Your task to perform on an android device: turn off picture-in-picture Image 0: 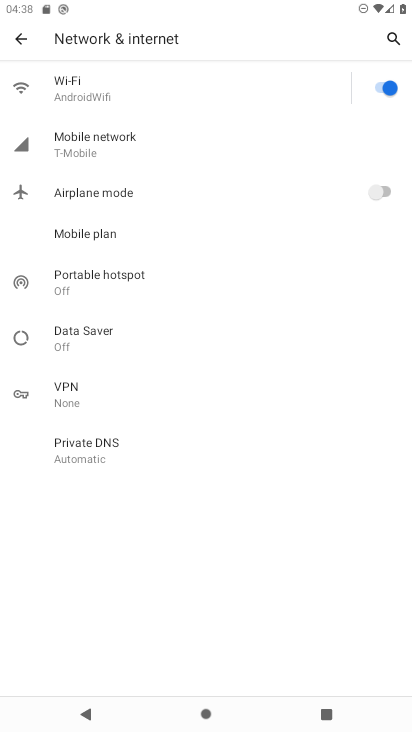
Step 0: press home button
Your task to perform on an android device: turn off picture-in-picture Image 1: 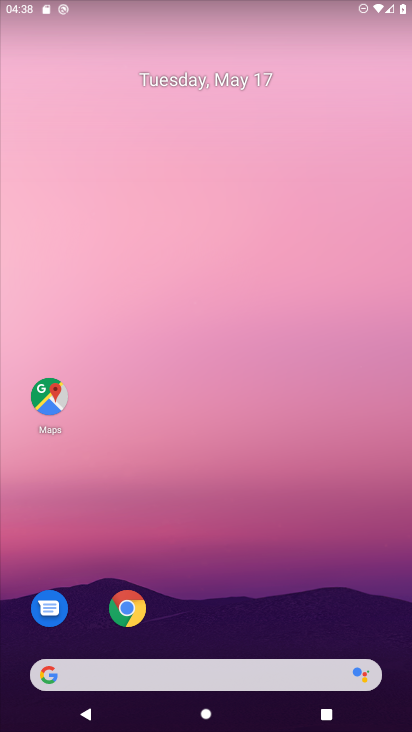
Step 1: click (120, 601)
Your task to perform on an android device: turn off picture-in-picture Image 2: 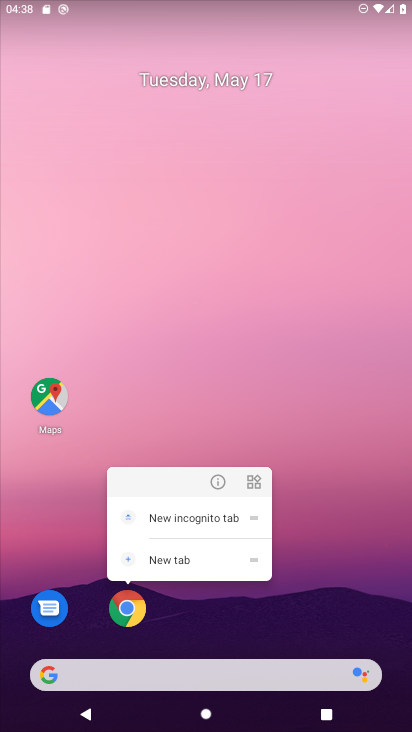
Step 2: click (220, 479)
Your task to perform on an android device: turn off picture-in-picture Image 3: 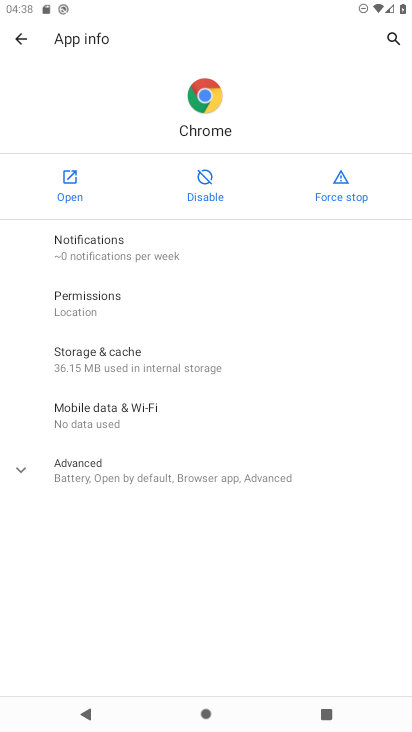
Step 3: click (113, 474)
Your task to perform on an android device: turn off picture-in-picture Image 4: 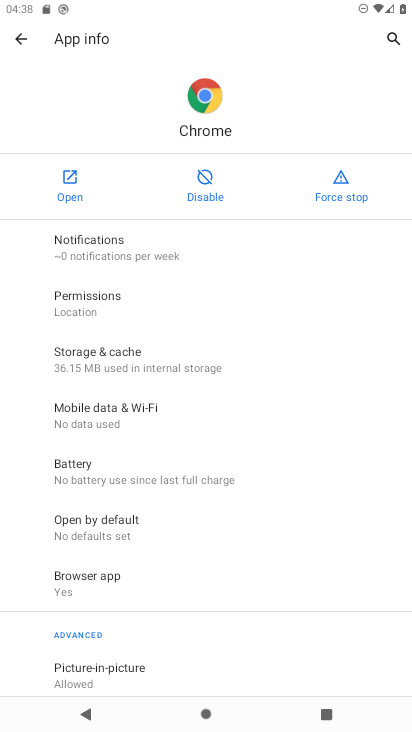
Step 4: drag from (231, 666) to (213, 251)
Your task to perform on an android device: turn off picture-in-picture Image 5: 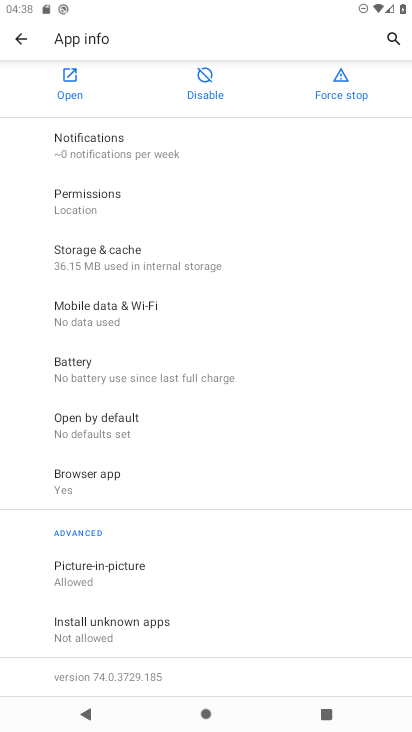
Step 5: click (75, 575)
Your task to perform on an android device: turn off picture-in-picture Image 6: 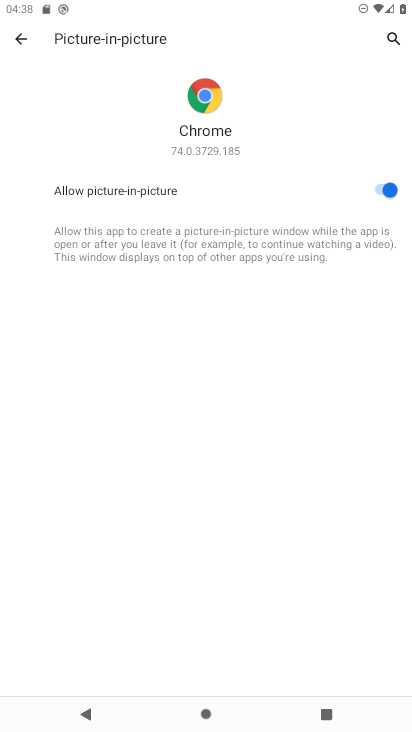
Step 6: click (379, 186)
Your task to perform on an android device: turn off picture-in-picture Image 7: 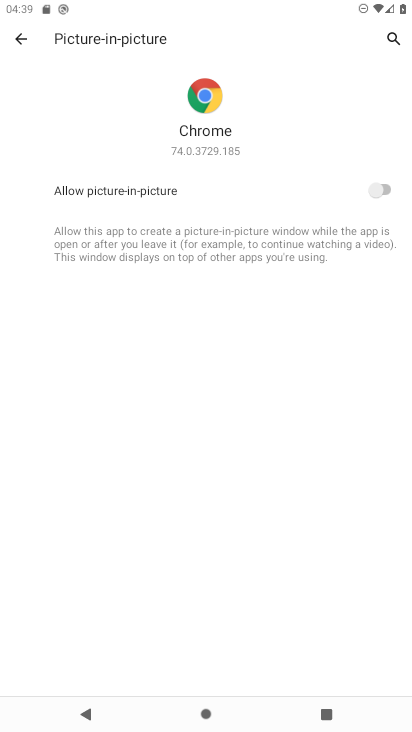
Step 7: task complete